Your task to perform on an android device: View the shopping cart on ebay. Add corsair k70 to the cart on ebay Image 0: 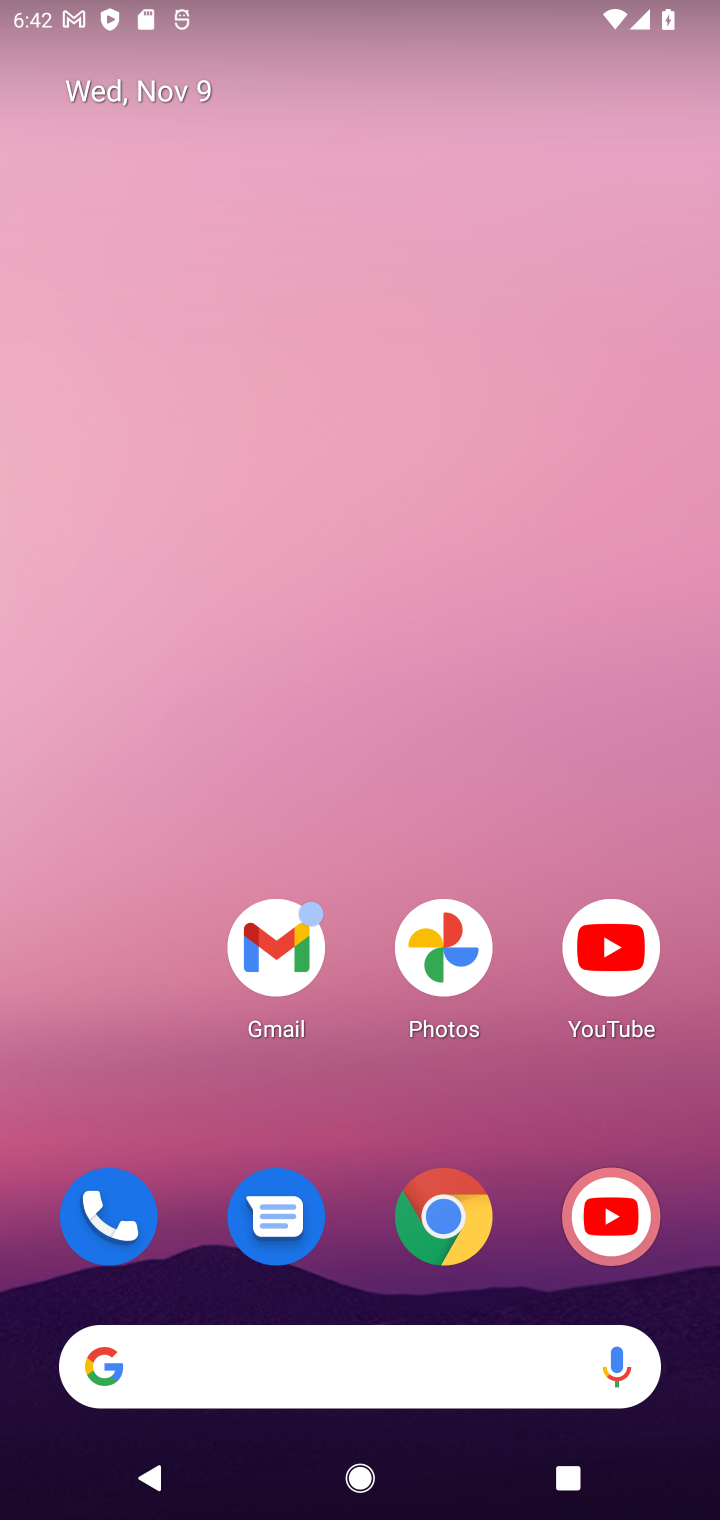
Step 0: drag from (388, 703) to (401, 169)
Your task to perform on an android device: View the shopping cart on ebay. Add corsair k70 to the cart on ebay Image 1: 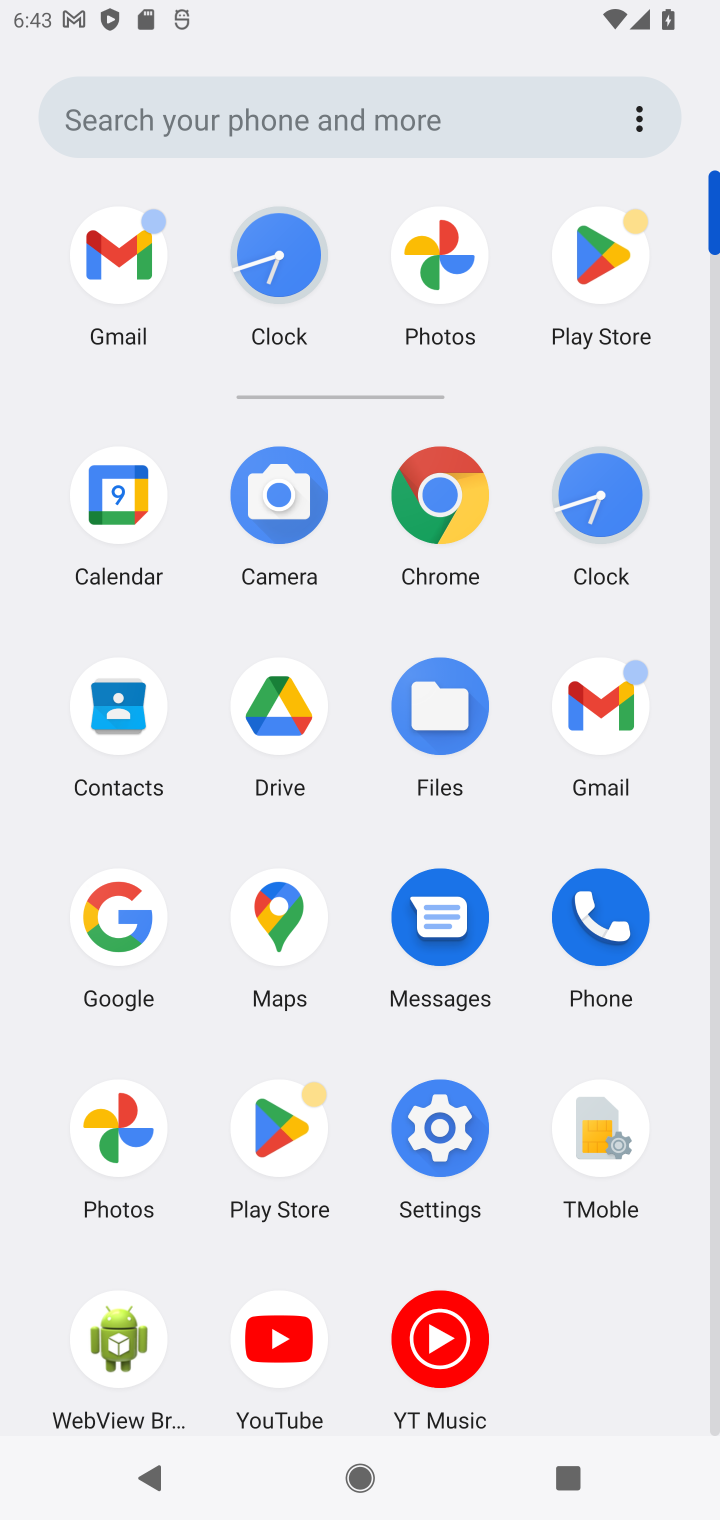
Step 1: click (450, 495)
Your task to perform on an android device: View the shopping cart on ebay. Add corsair k70 to the cart on ebay Image 2: 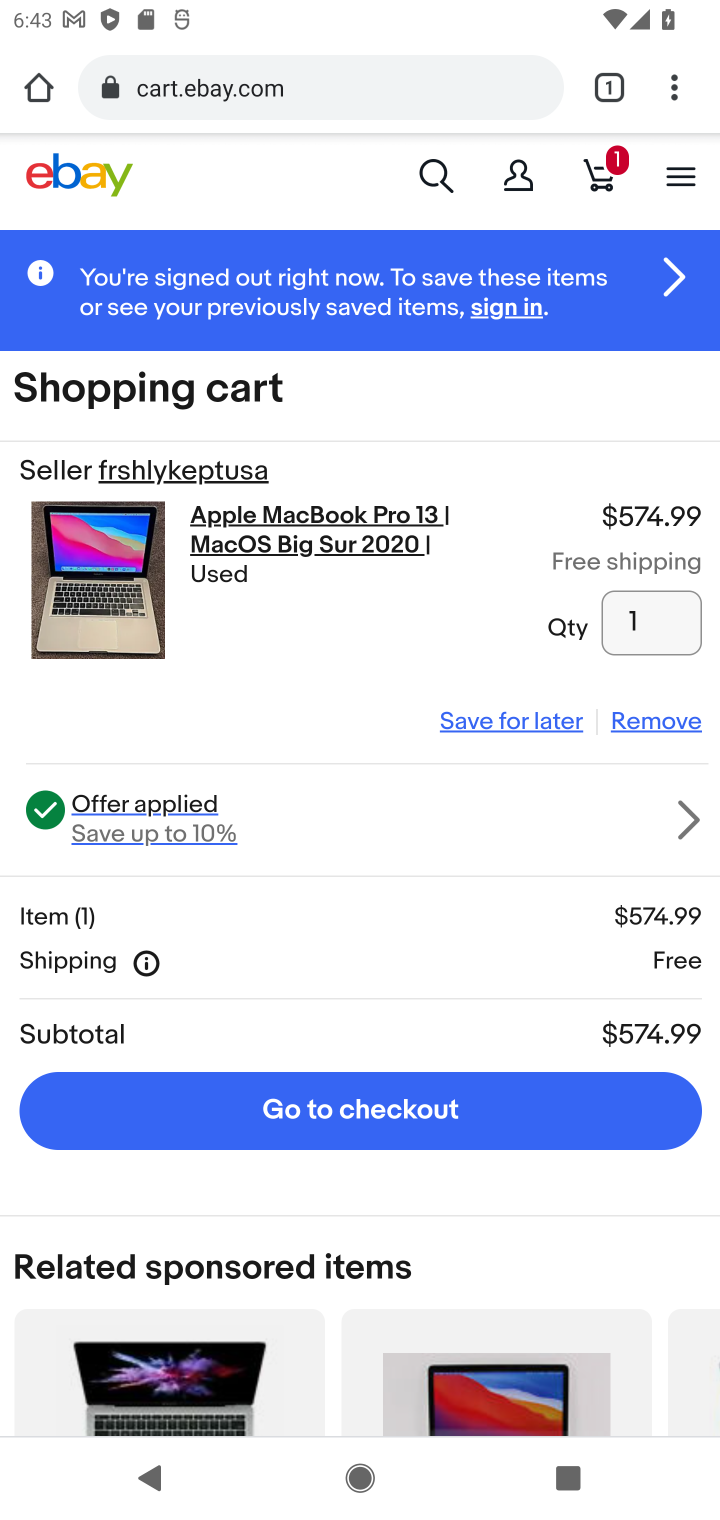
Step 2: click (433, 173)
Your task to perform on an android device: View the shopping cart on ebay. Add corsair k70 to the cart on ebay Image 3: 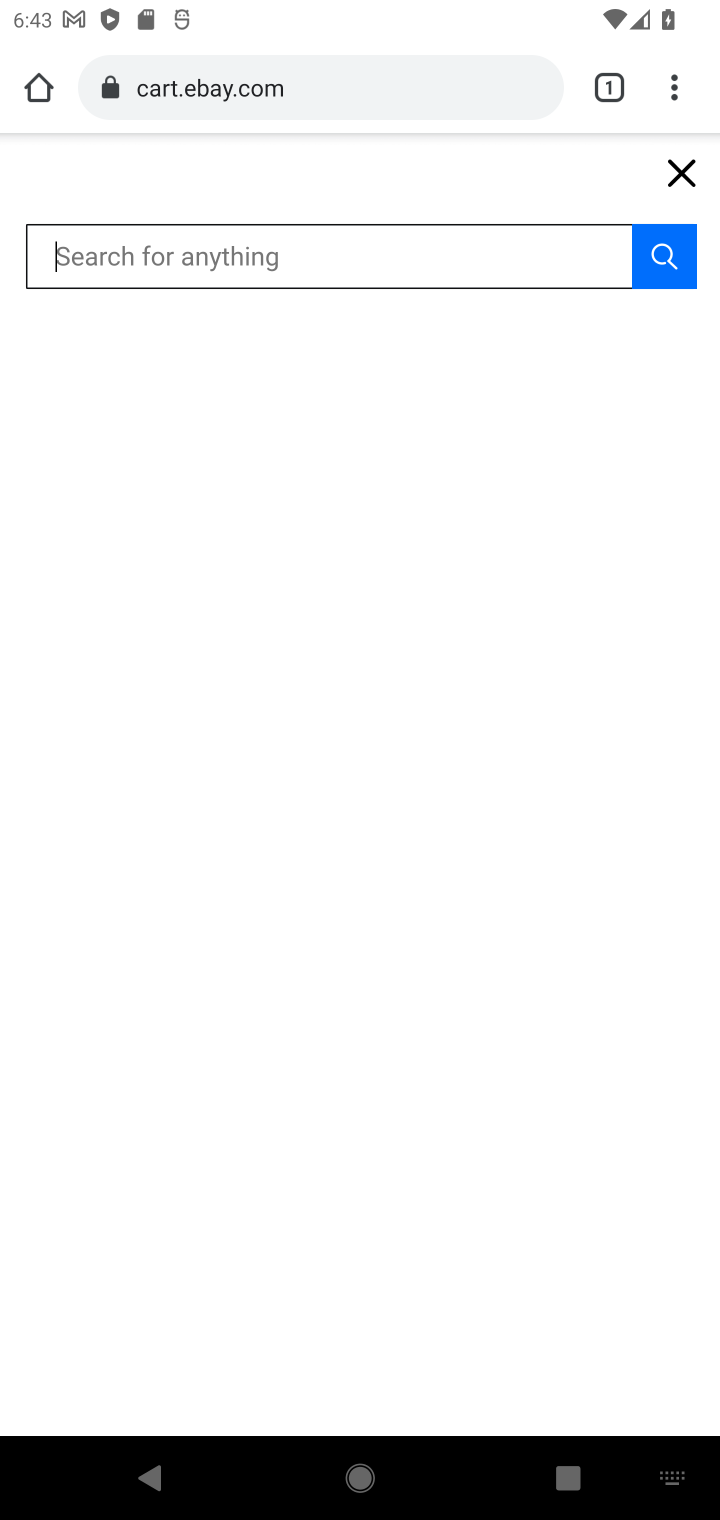
Step 3: type "corsair k70"
Your task to perform on an android device: View the shopping cart on ebay. Add corsair k70 to the cart on ebay Image 4: 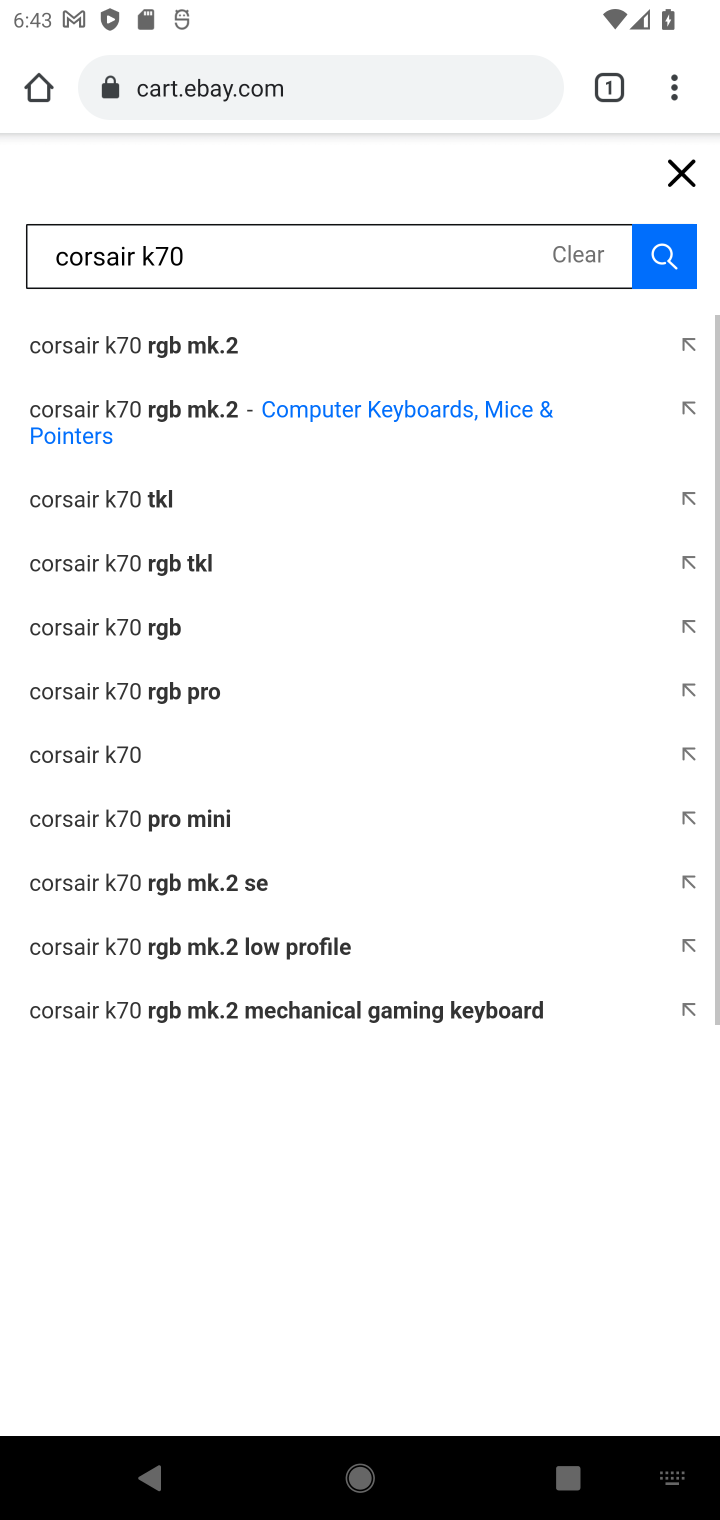
Step 4: press enter
Your task to perform on an android device: View the shopping cart on ebay. Add corsair k70 to the cart on ebay Image 5: 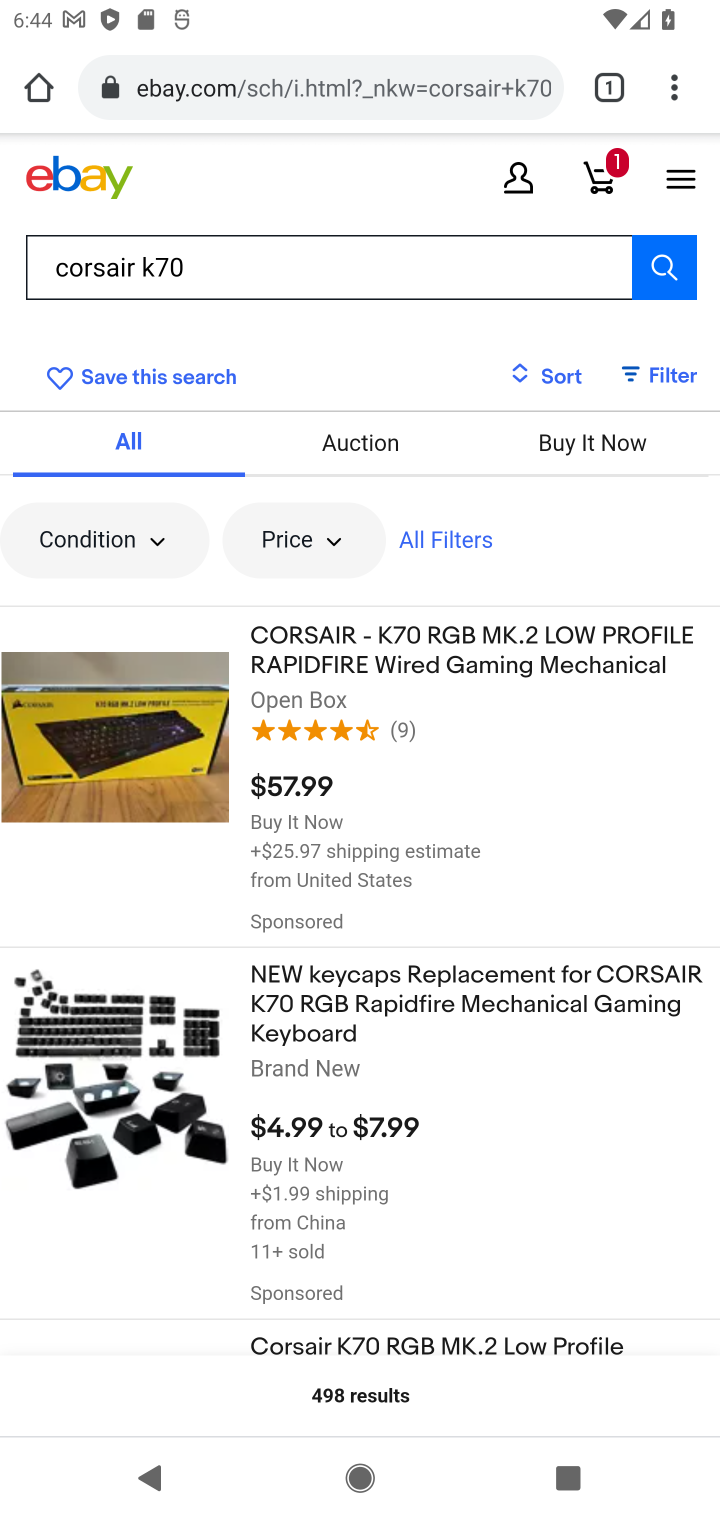
Step 5: click (477, 646)
Your task to perform on an android device: View the shopping cart on ebay. Add corsair k70 to the cart on ebay Image 6: 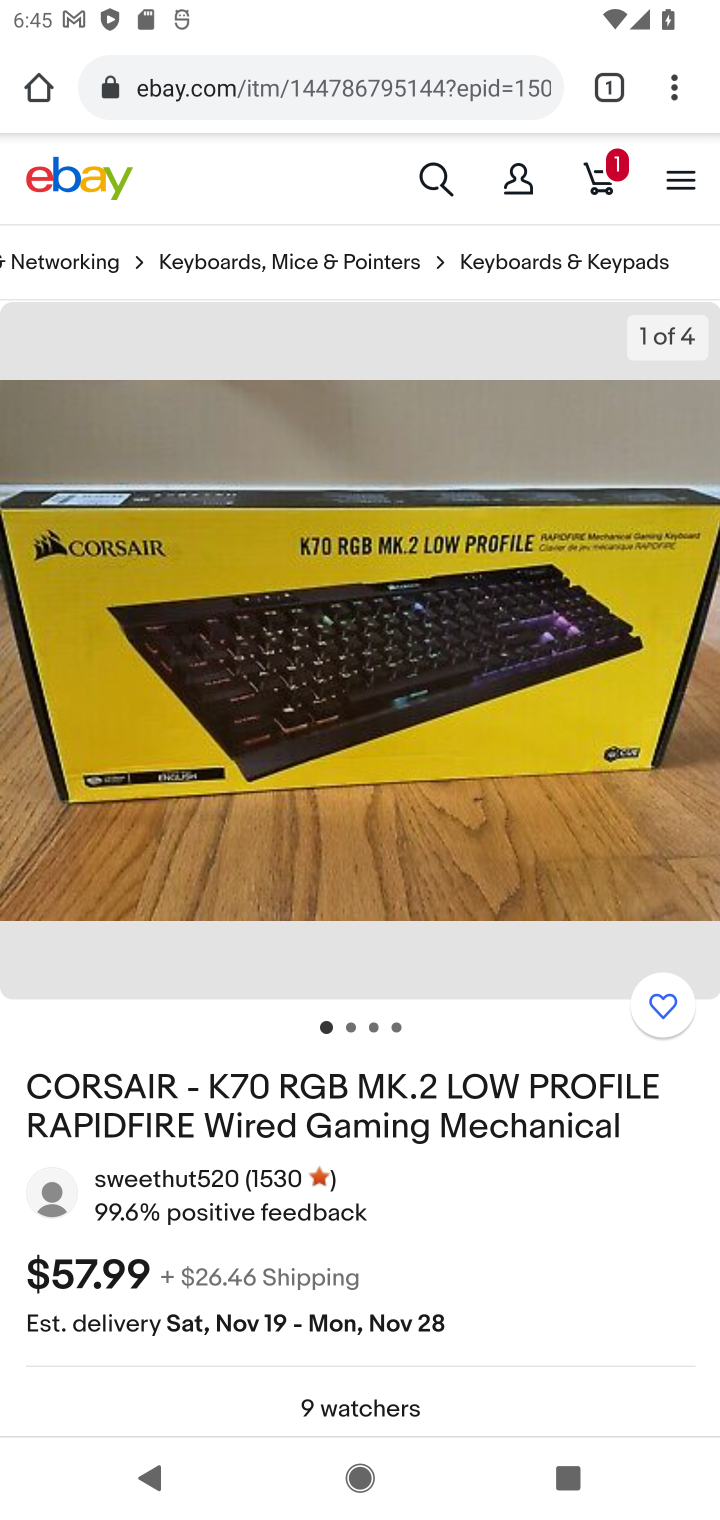
Step 6: drag from (350, 581) to (346, 245)
Your task to perform on an android device: View the shopping cart on ebay. Add corsair k70 to the cart on ebay Image 7: 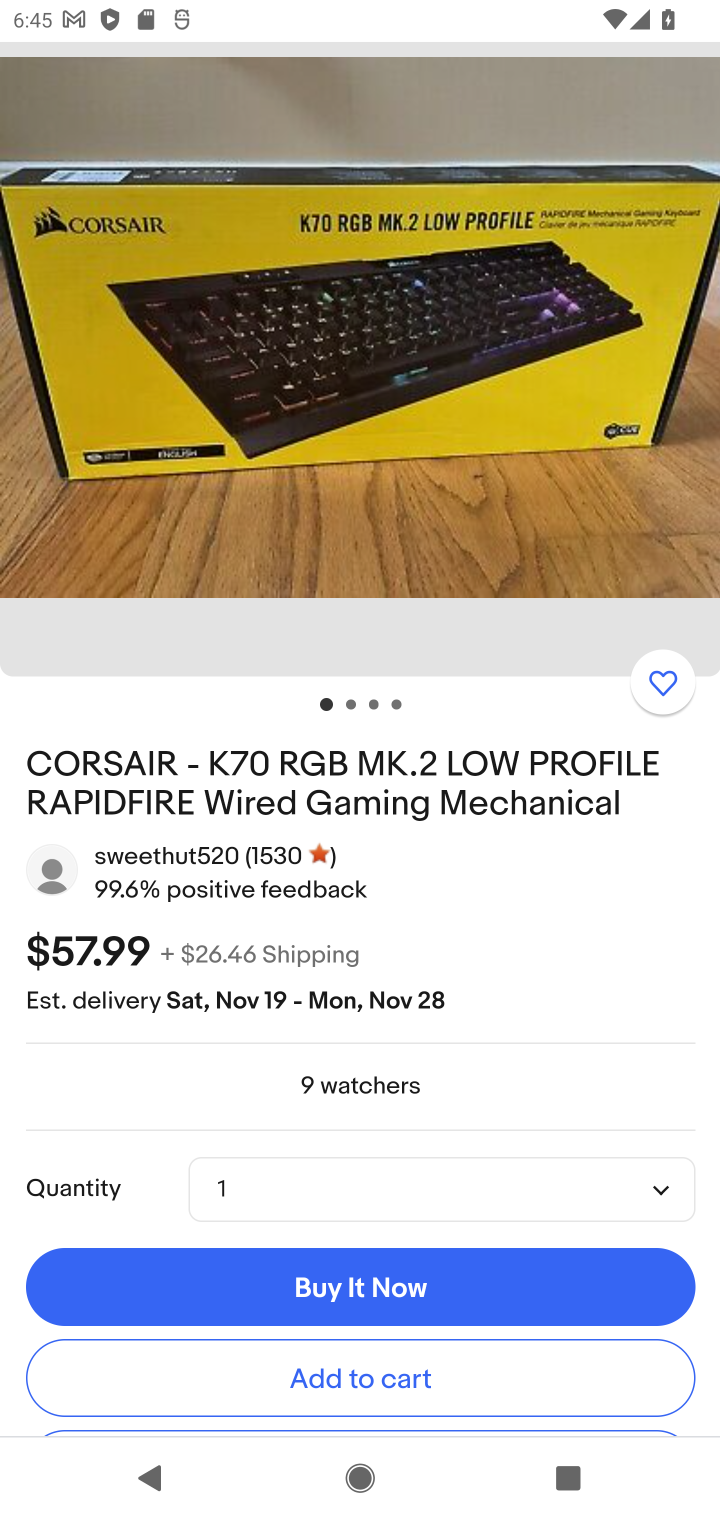
Step 7: click (459, 1370)
Your task to perform on an android device: View the shopping cart on ebay. Add corsair k70 to the cart on ebay Image 8: 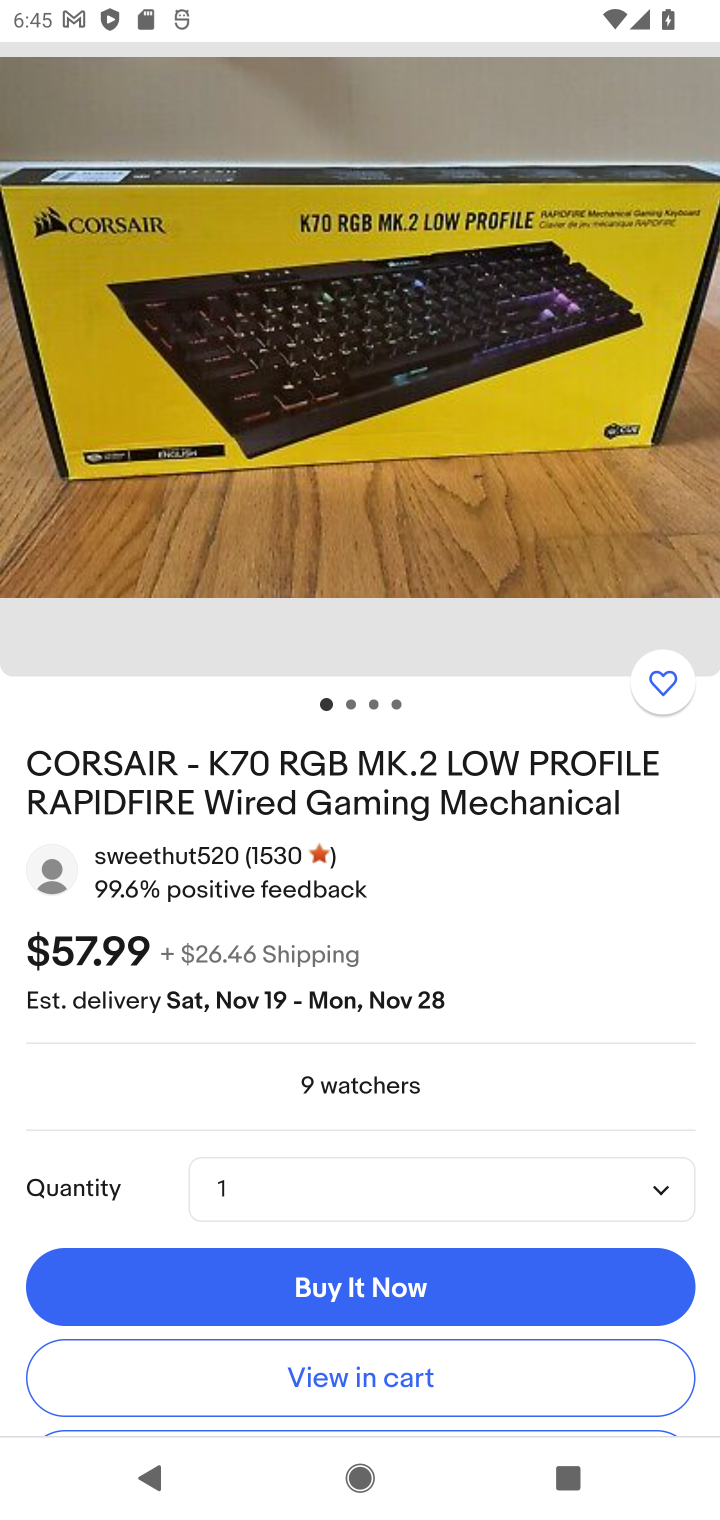
Step 8: task complete